Your task to perform on an android device: toggle airplane mode Image 0: 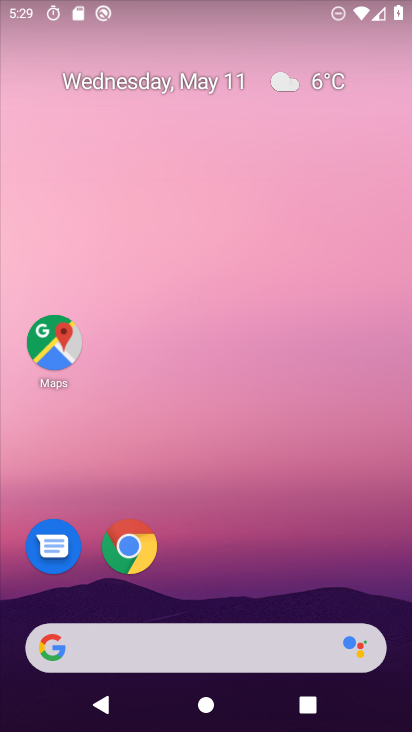
Step 0: drag from (212, 608) to (160, 211)
Your task to perform on an android device: toggle airplane mode Image 1: 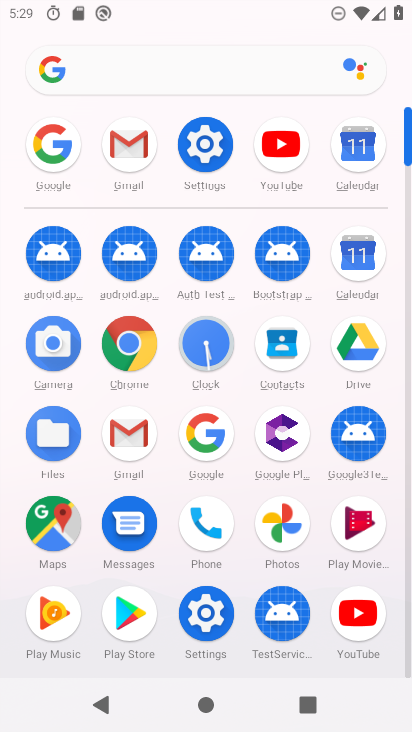
Step 1: click (202, 134)
Your task to perform on an android device: toggle airplane mode Image 2: 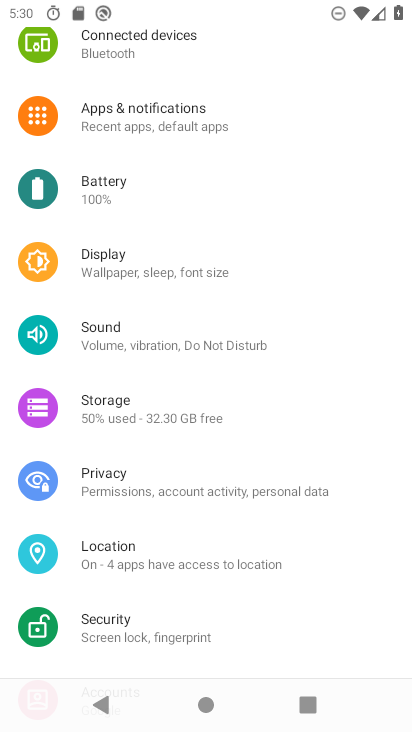
Step 2: drag from (182, 75) to (240, 494)
Your task to perform on an android device: toggle airplane mode Image 3: 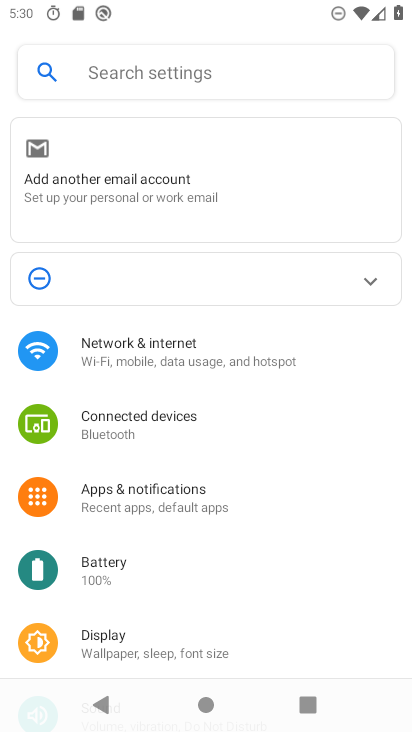
Step 3: click (159, 362)
Your task to perform on an android device: toggle airplane mode Image 4: 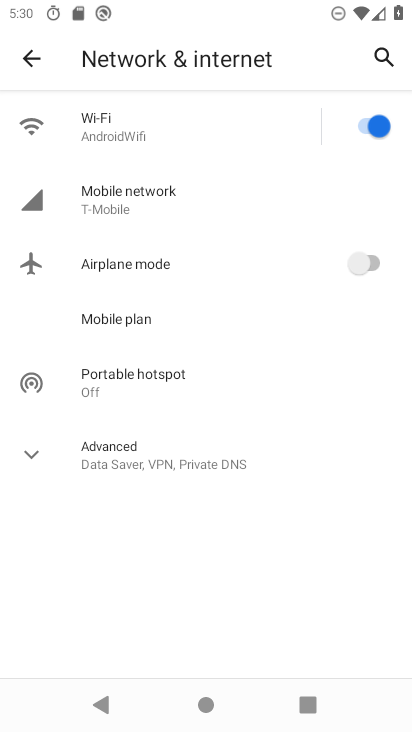
Step 4: click (375, 257)
Your task to perform on an android device: toggle airplane mode Image 5: 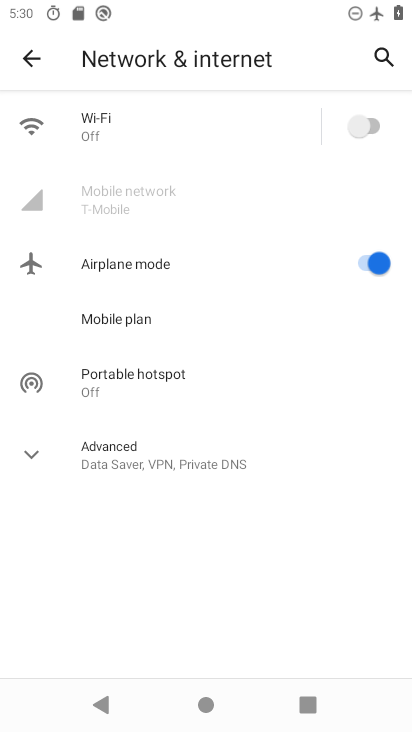
Step 5: task complete